Your task to perform on an android device: toggle pop-ups in chrome Image 0: 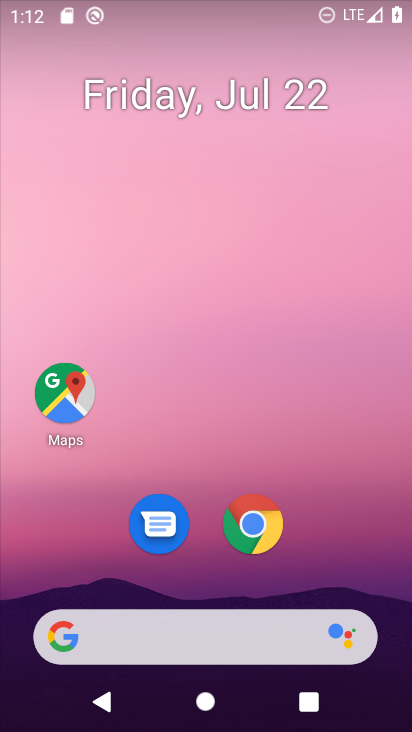
Step 0: click (262, 530)
Your task to perform on an android device: toggle pop-ups in chrome Image 1: 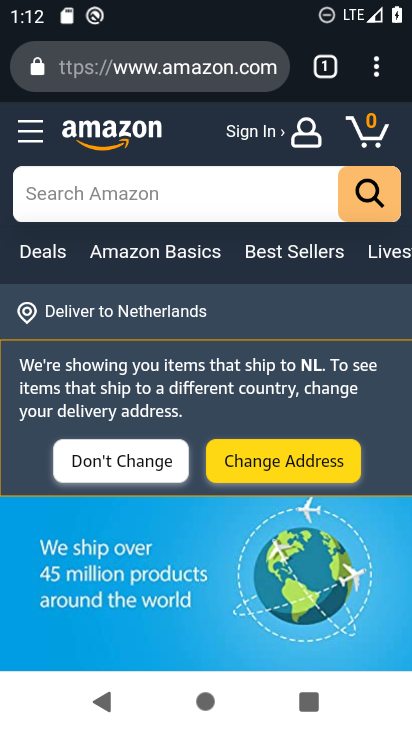
Step 1: press back button
Your task to perform on an android device: toggle pop-ups in chrome Image 2: 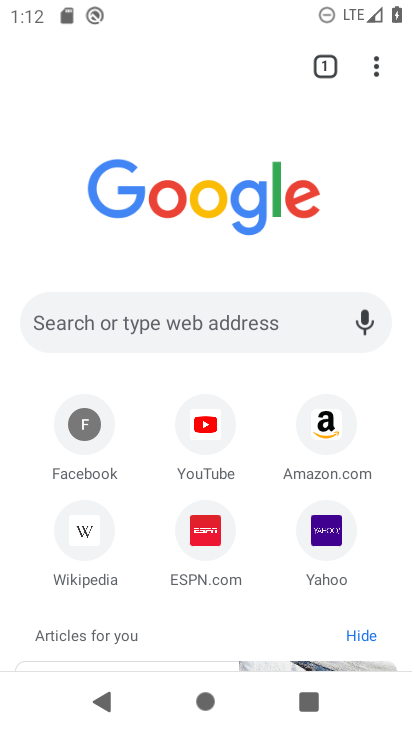
Step 2: click (377, 66)
Your task to perform on an android device: toggle pop-ups in chrome Image 3: 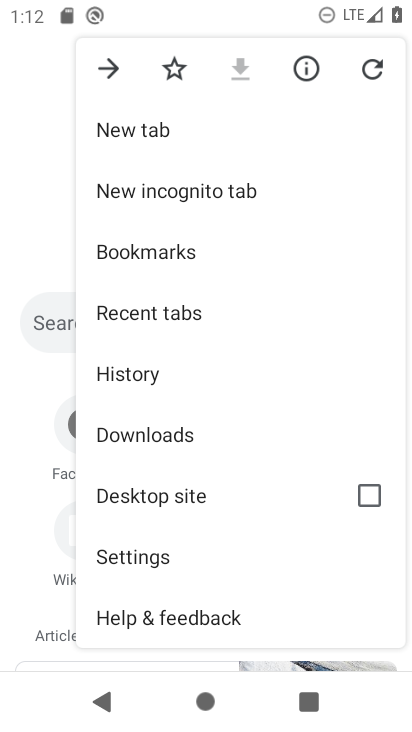
Step 3: click (149, 553)
Your task to perform on an android device: toggle pop-ups in chrome Image 4: 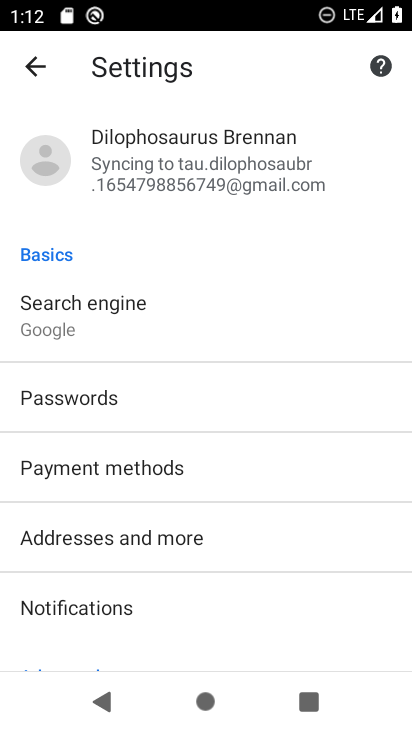
Step 4: drag from (148, 562) to (202, 170)
Your task to perform on an android device: toggle pop-ups in chrome Image 5: 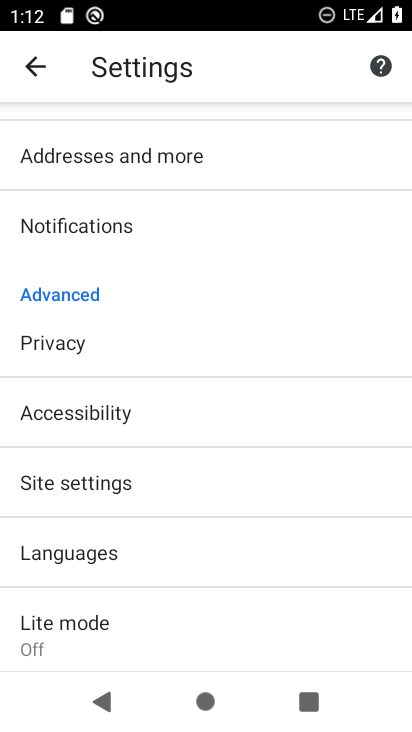
Step 5: click (129, 482)
Your task to perform on an android device: toggle pop-ups in chrome Image 6: 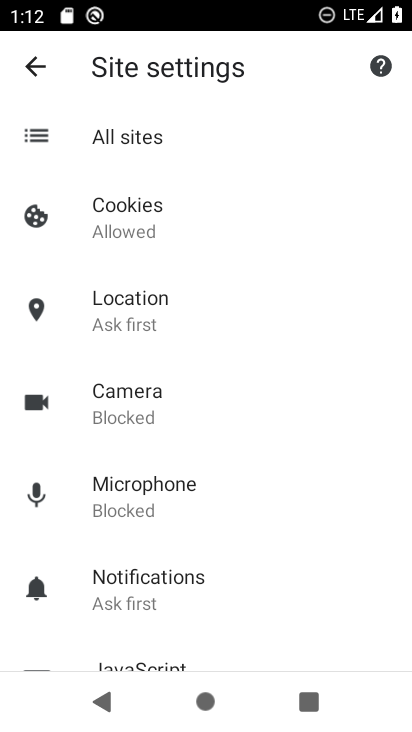
Step 6: drag from (259, 578) to (247, 286)
Your task to perform on an android device: toggle pop-ups in chrome Image 7: 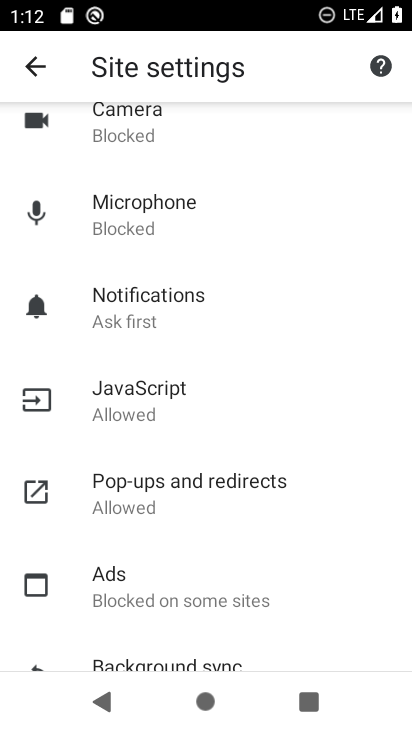
Step 7: click (182, 468)
Your task to perform on an android device: toggle pop-ups in chrome Image 8: 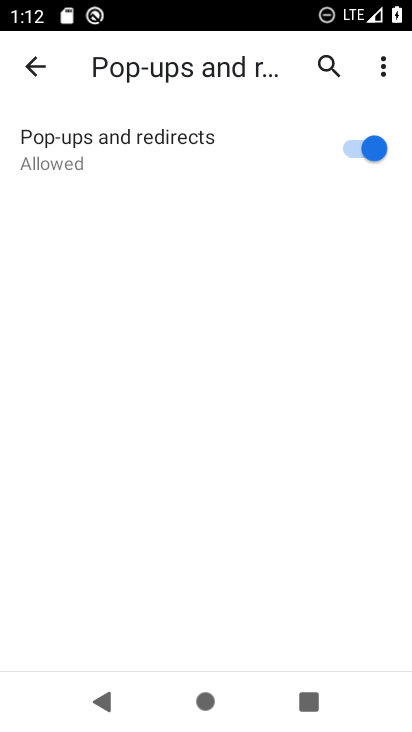
Step 8: click (367, 144)
Your task to perform on an android device: toggle pop-ups in chrome Image 9: 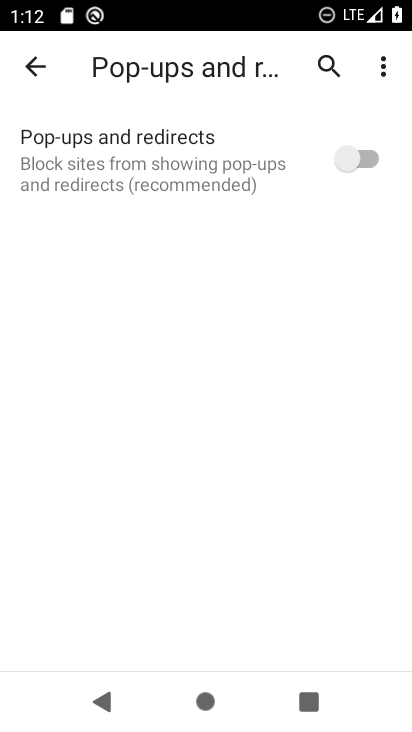
Step 9: task complete